Your task to perform on an android device: Is it going to rain this weekend? Image 0: 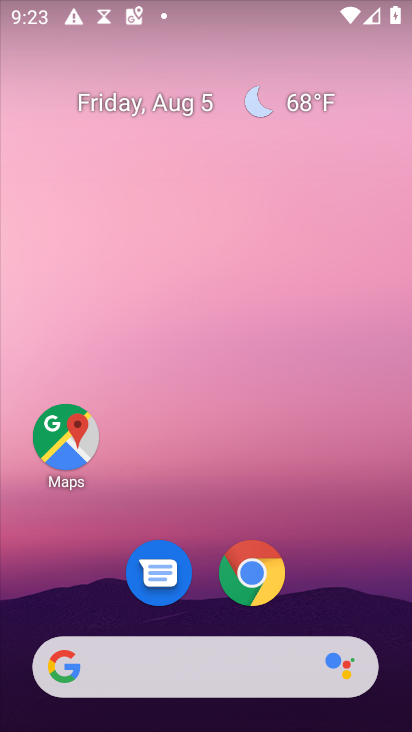
Step 0: drag from (208, 660) to (219, 9)
Your task to perform on an android device: Is it going to rain this weekend? Image 1: 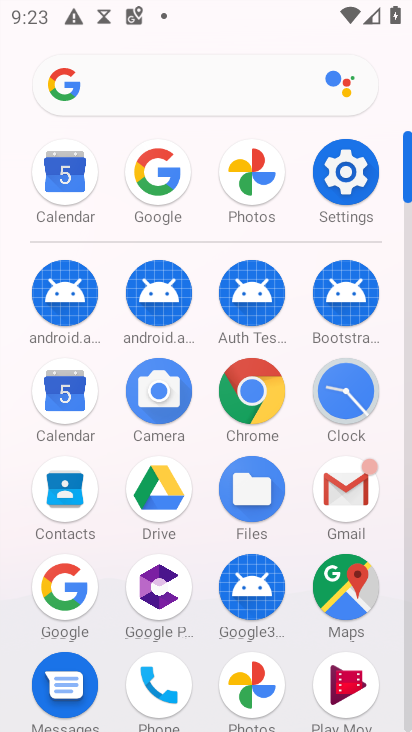
Step 1: click (154, 168)
Your task to perform on an android device: Is it going to rain this weekend? Image 2: 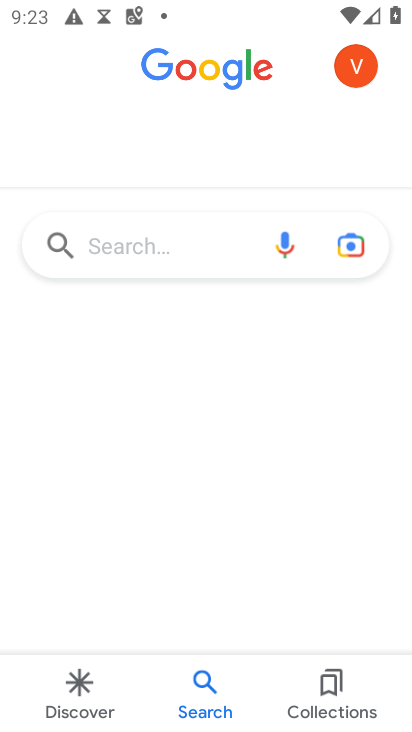
Step 2: click (208, 251)
Your task to perform on an android device: Is it going to rain this weekend? Image 3: 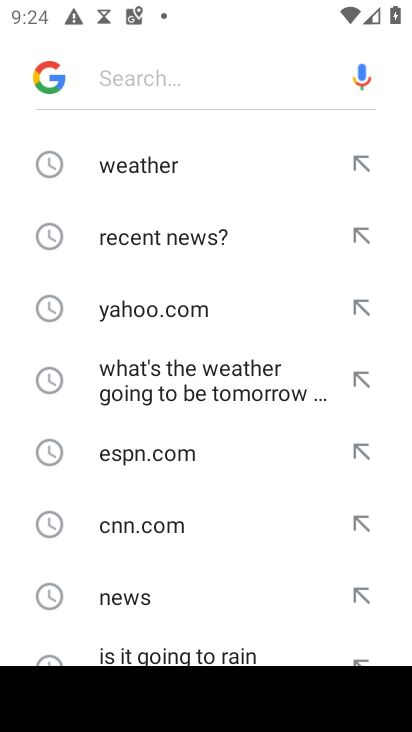
Step 3: type "Is it going to rain this weekend?"
Your task to perform on an android device: Is it going to rain this weekend? Image 4: 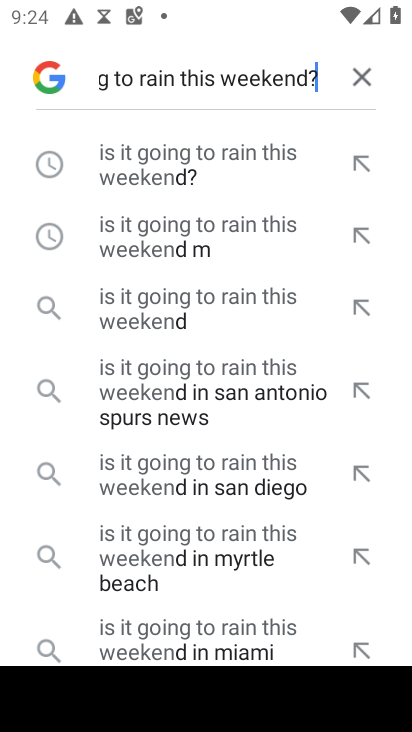
Step 4: type ""
Your task to perform on an android device: Is it going to rain this weekend? Image 5: 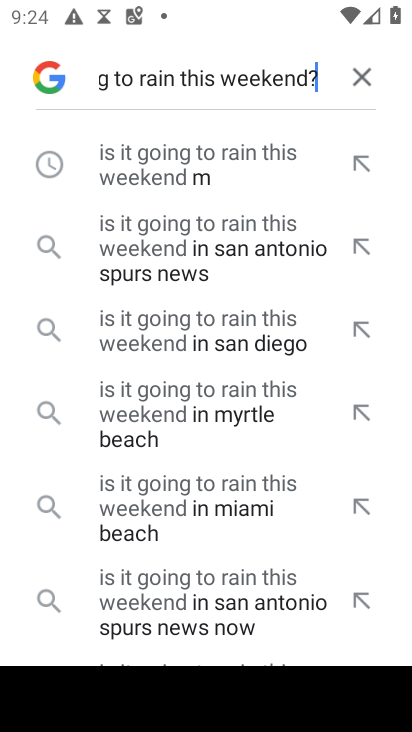
Step 5: click (235, 340)
Your task to perform on an android device: Is it going to rain this weekend? Image 6: 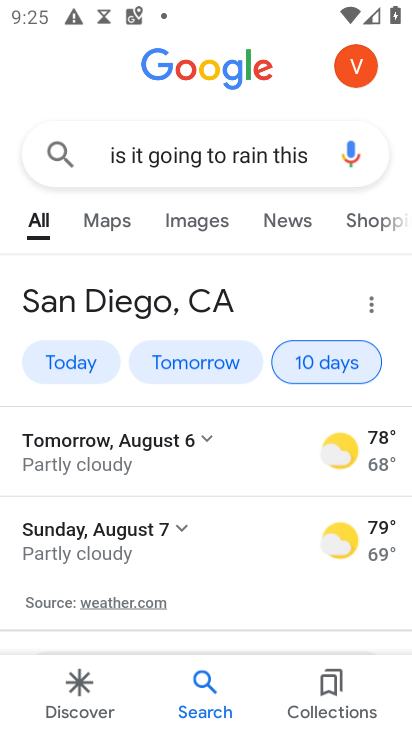
Step 6: task complete